Your task to perform on an android device: Go to Android settings Image 0: 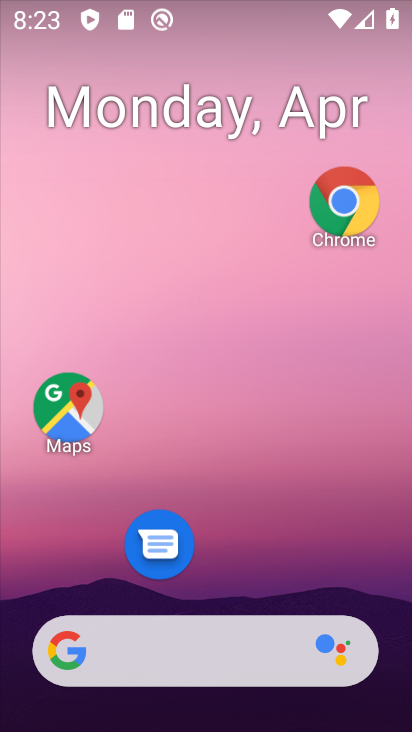
Step 0: drag from (213, 597) to (221, 19)
Your task to perform on an android device: Go to Android settings Image 1: 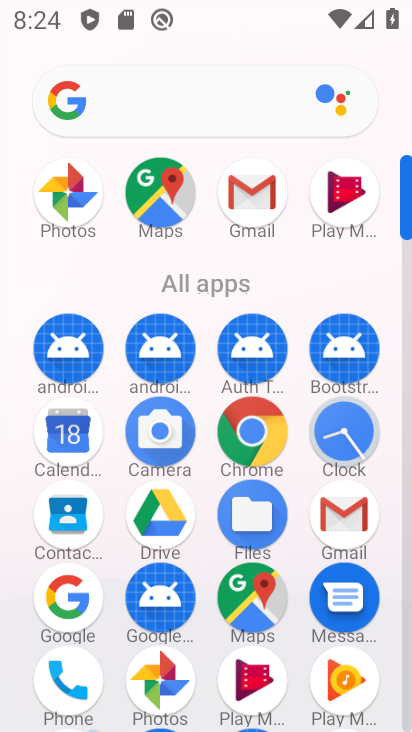
Step 1: drag from (206, 637) to (198, 189)
Your task to perform on an android device: Go to Android settings Image 2: 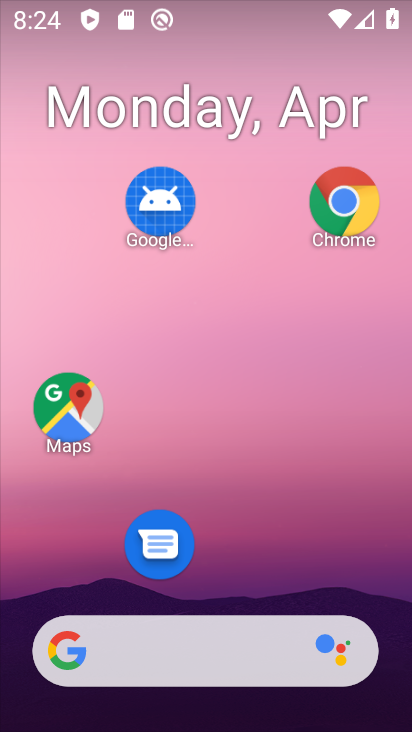
Step 2: drag from (244, 571) to (236, 52)
Your task to perform on an android device: Go to Android settings Image 3: 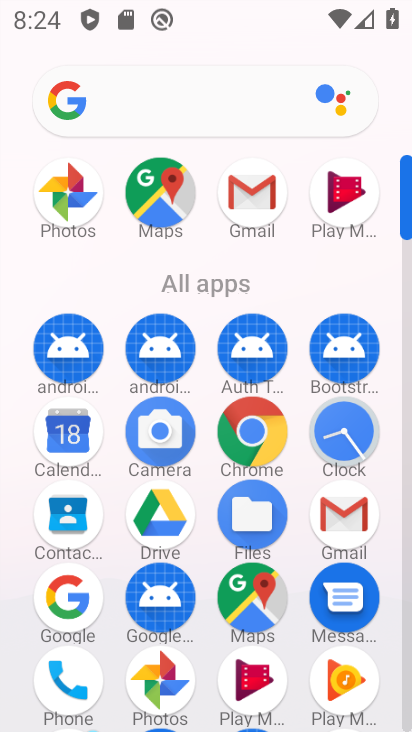
Step 3: drag from (210, 562) to (183, 104)
Your task to perform on an android device: Go to Android settings Image 4: 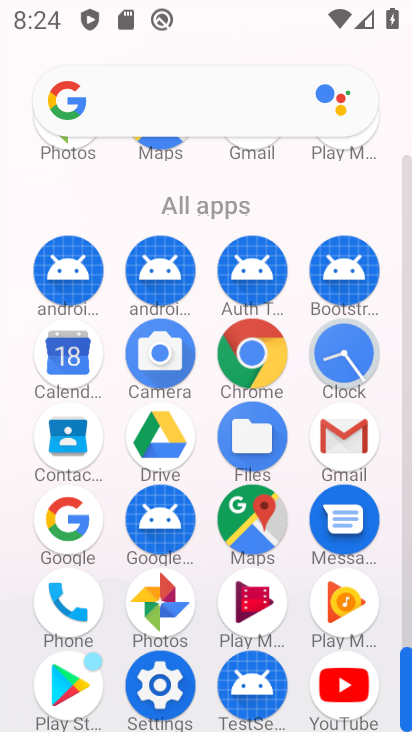
Step 4: click (164, 676)
Your task to perform on an android device: Go to Android settings Image 5: 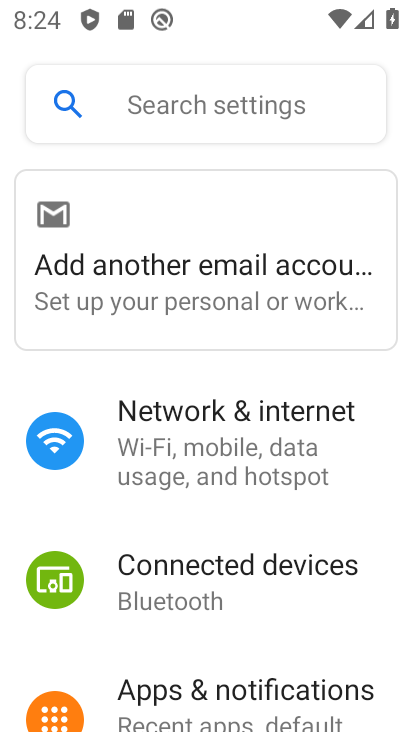
Step 5: task complete